Your task to perform on an android device: Go to network settings Image 0: 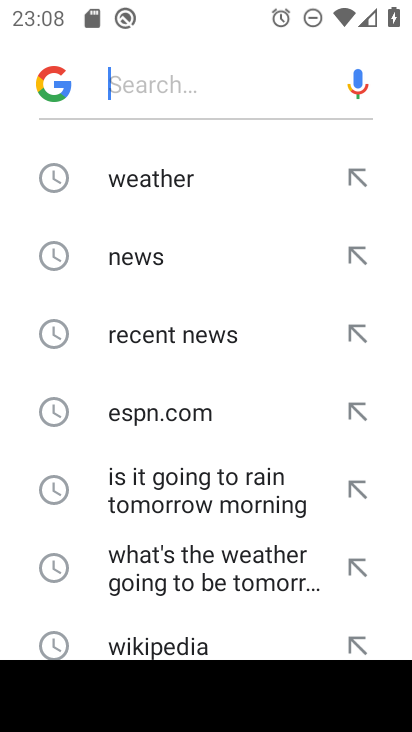
Step 0: press home button
Your task to perform on an android device: Go to network settings Image 1: 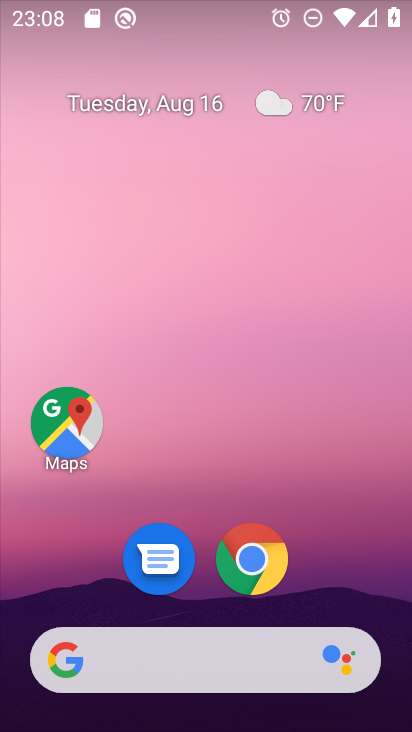
Step 1: drag from (138, 660) to (294, 48)
Your task to perform on an android device: Go to network settings Image 2: 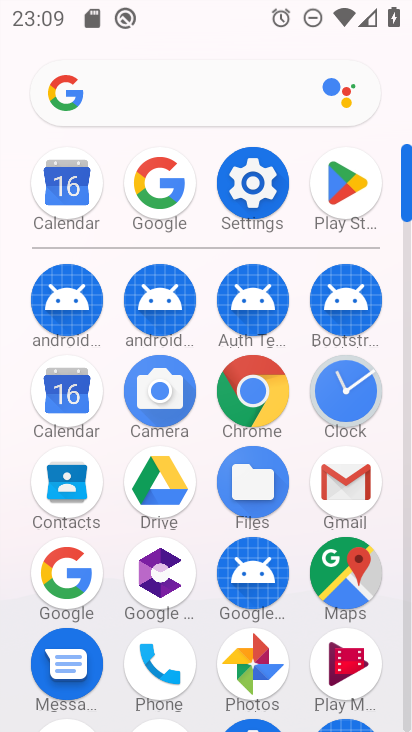
Step 2: click (252, 184)
Your task to perform on an android device: Go to network settings Image 3: 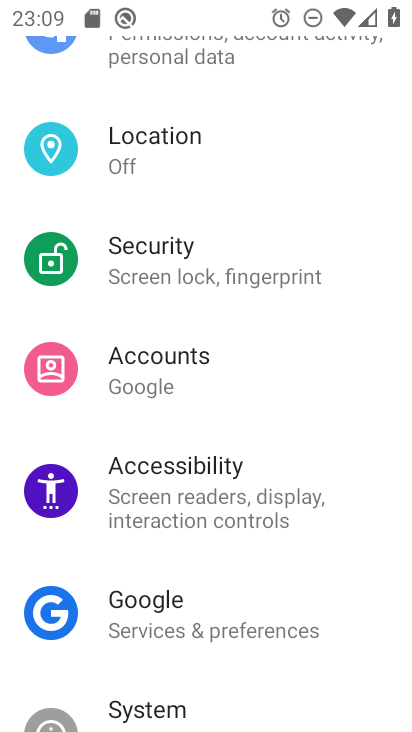
Step 3: drag from (226, 176) to (202, 410)
Your task to perform on an android device: Go to network settings Image 4: 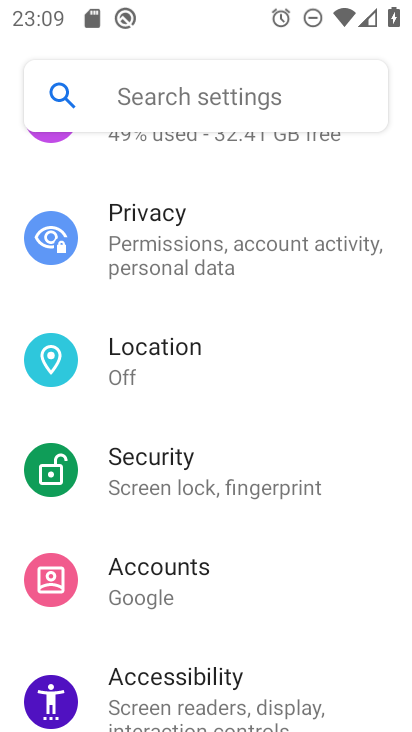
Step 4: drag from (244, 217) to (265, 506)
Your task to perform on an android device: Go to network settings Image 5: 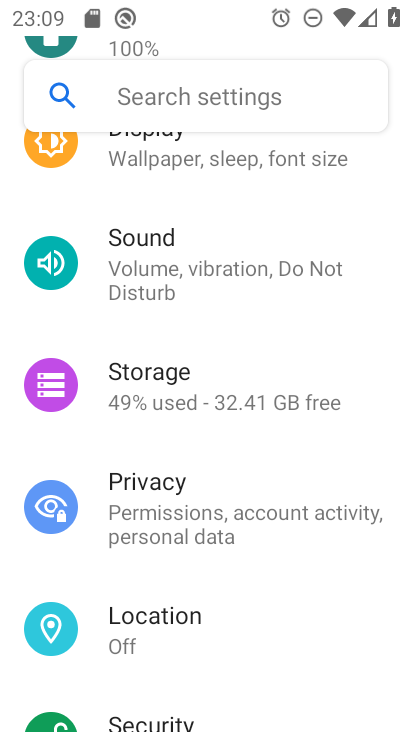
Step 5: drag from (292, 230) to (282, 457)
Your task to perform on an android device: Go to network settings Image 6: 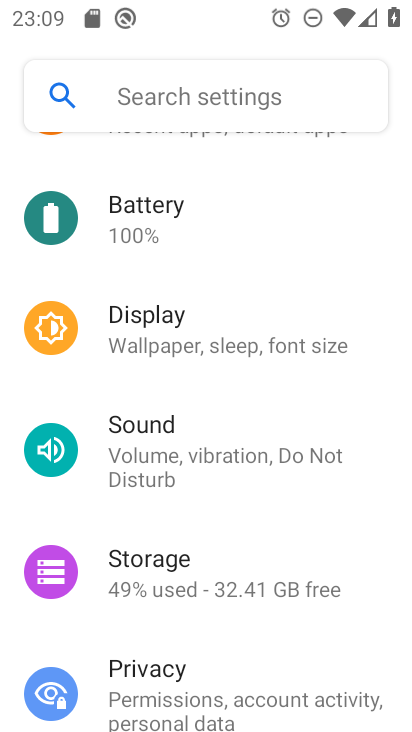
Step 6: drag from (294, 261) to (272, 443)
Your task to perform on an android device: Go to network settings Image 7: 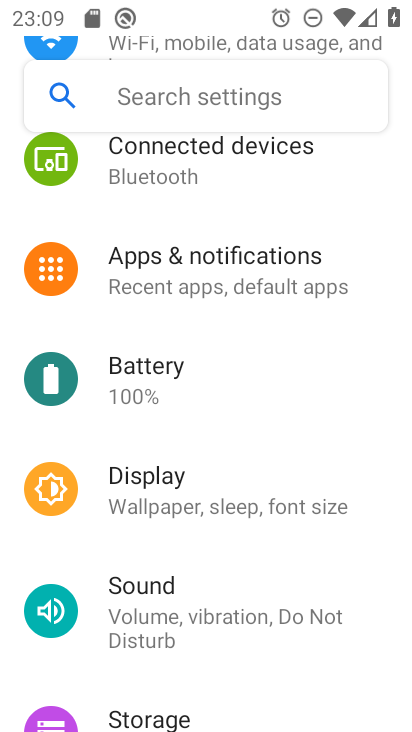
Step 7: drag from (227, 220) to (223, 459)
Your task to perform on an android device: Go to network settings Image 8: 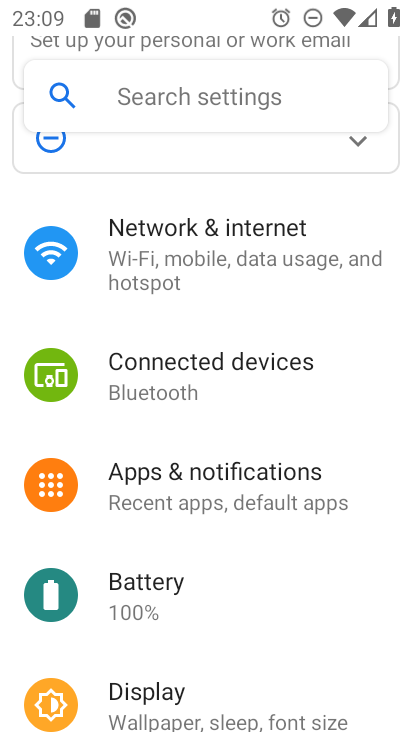
Step 8: drag from (232, 217) to (213, 342)
Your task to perform on an android device: Go to network settings Image 9: 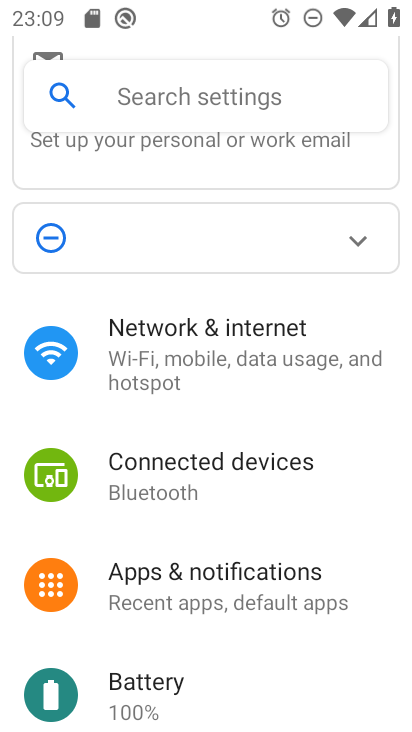
Step 9: click (210, 323)
Your task to perform on an android device: Go to network settings Image 10: 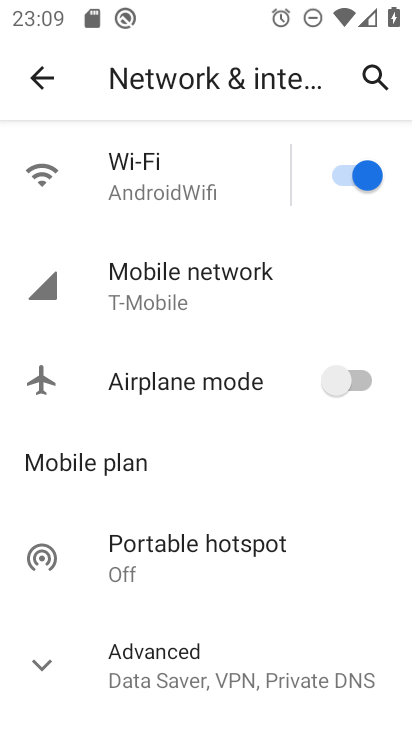
Step 10: click (149, 201)
Your task to perform on an android device: Go to network settings Image 11: 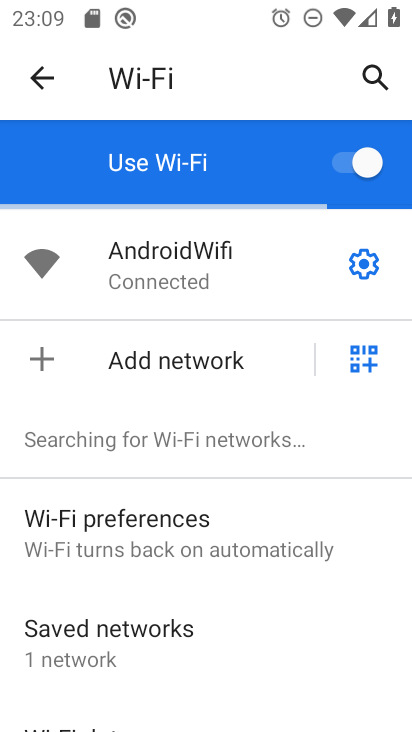
Step 11: task complete